Your task to perform on an android device: install app "The Home Depot" Image 0: 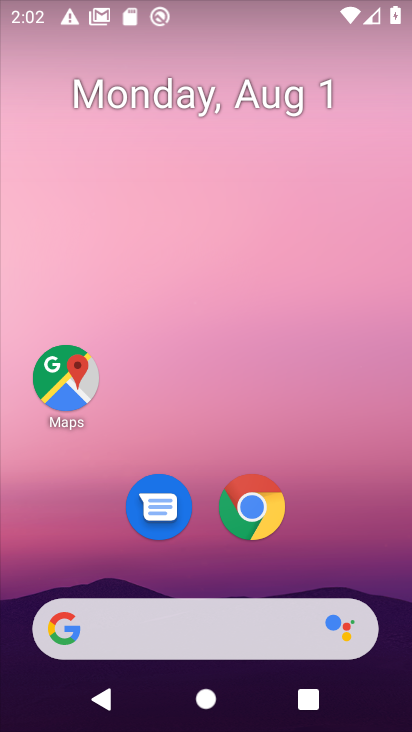
Step 0: drag from (190, 562) to (89, 7)
Your task to perform on an android device: install app "The Home Depot" Image 1: 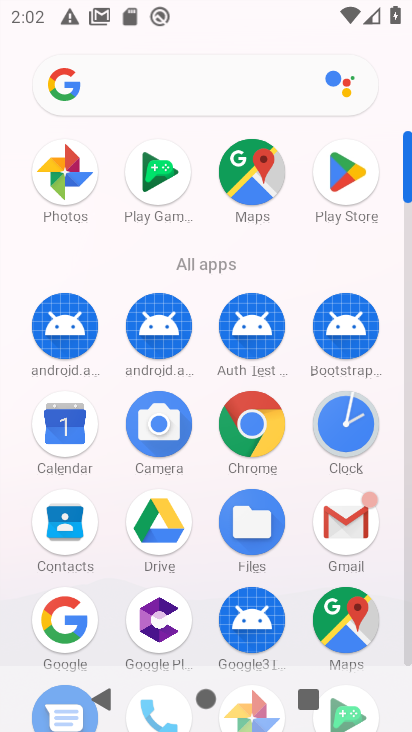
Step 1: click (361, 195)
Your task to perform on an android device: install app "The Home Depot" Image 2: 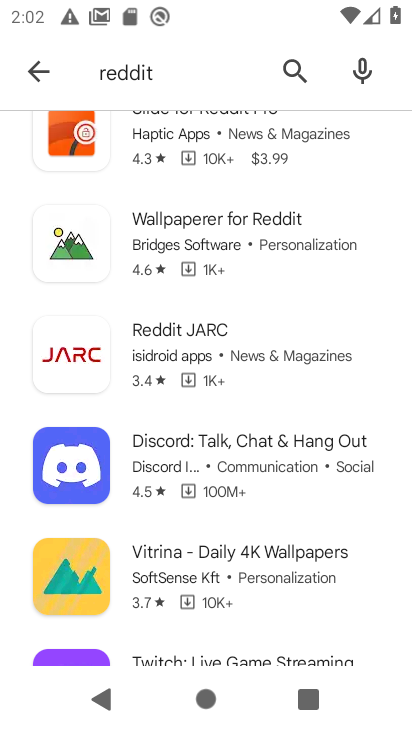
Step 2: click (157, 73)
Your task to perform on an android device: install app "The Home Depot" Image 3: 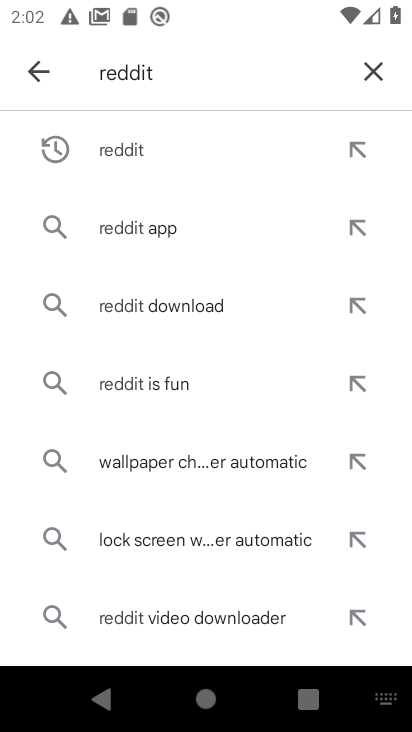
Step 3: click (28, 63)
Your task to perform on an android device: install app "The Home Depot" Image 4: 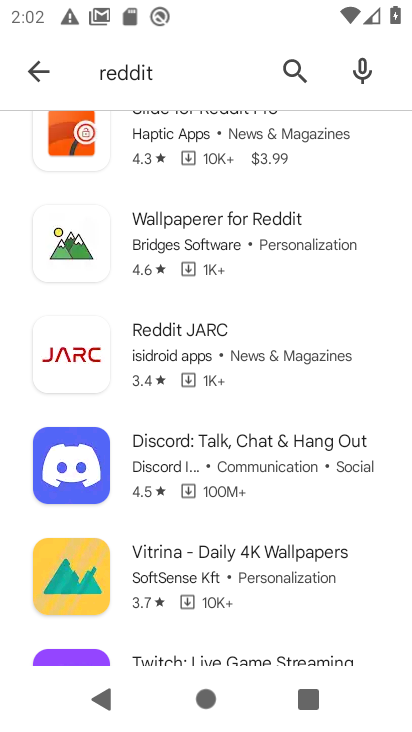
Step 4: click (141, 65)
Your task to perform on an android device: install app "The Home Depot" Image 5: 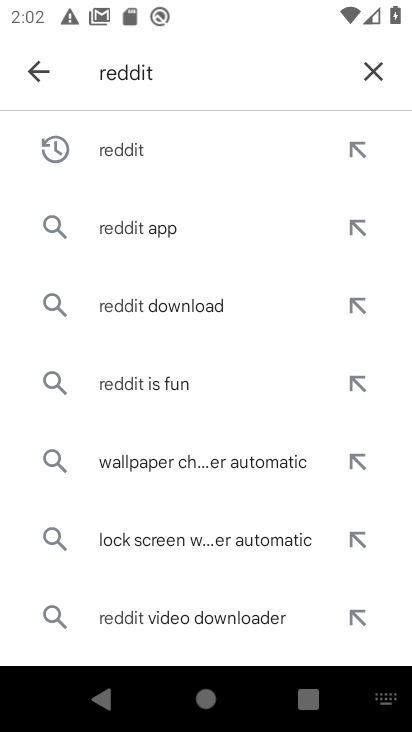
Step 5: click (371, 73)
Your task to perform on an android device: install app "The Home Depot" Image 6: 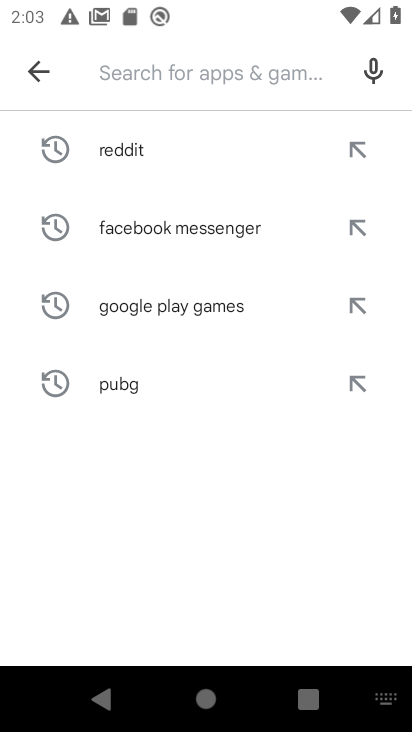
Step 6: type "the home depot"
Your task to perform on an android device: install app "The Home Depot" Image 7: 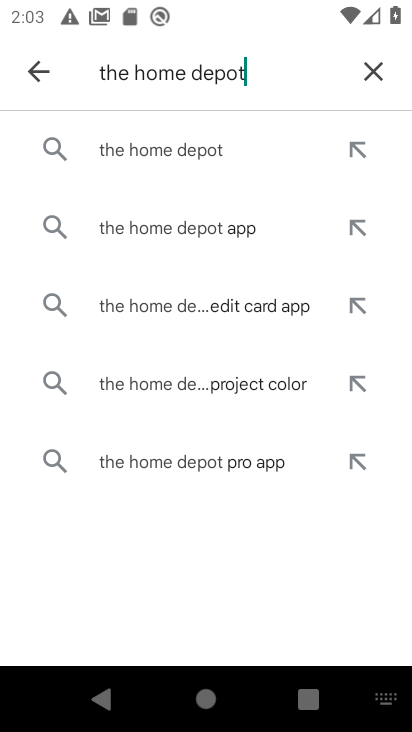
Step 7: click (174, 161)
Your task to perform on an android device: install app "The Home Depot" Image 8: 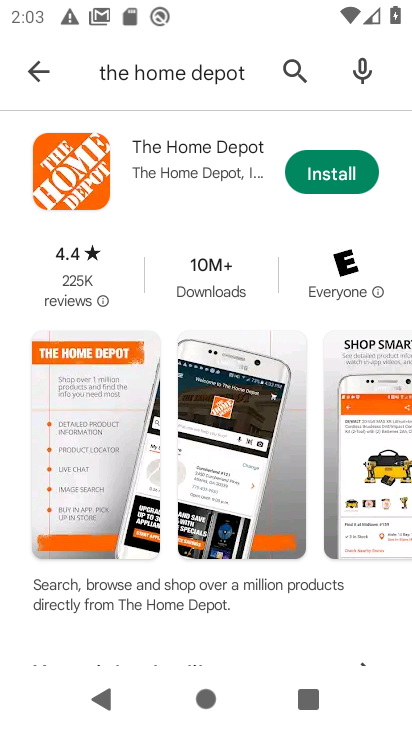
Step 8: click (301, 184)
Your task to perform on an android device: install app "The Home Depot" Image 9: 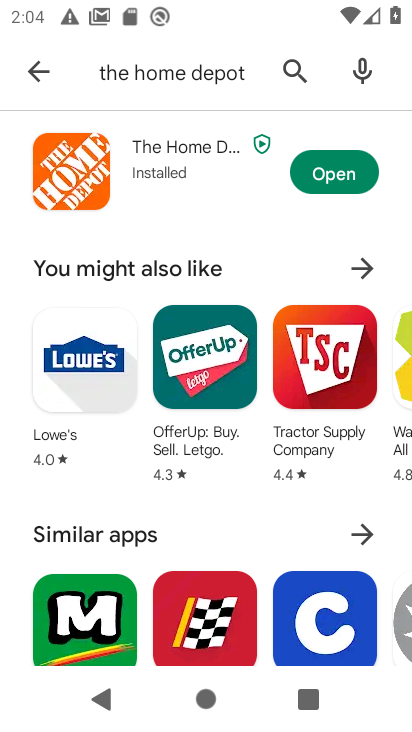
Step 9: task complete